Your task to perform on an android device: Go to Wikipedia Image 0: 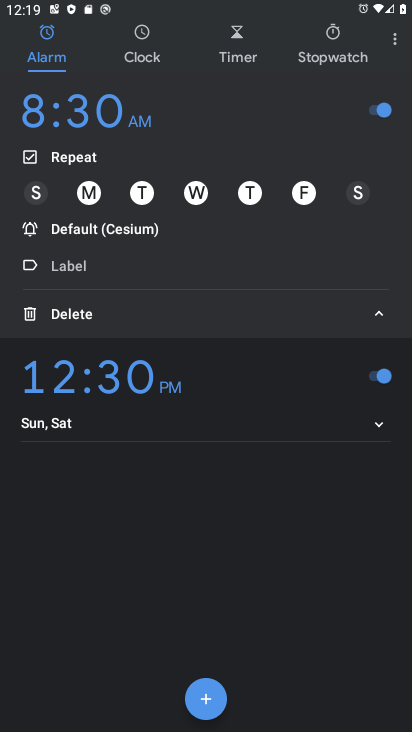
Step 0: press home button
Your task to perform on an android device: Go to Wikipedia Image 1: 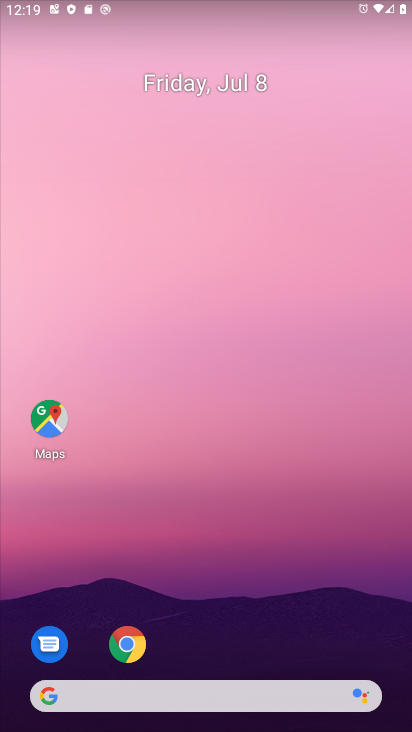
Step 1: click (132, 646)
Your task to perform on an android device: Go to Wikipedia Image 2: 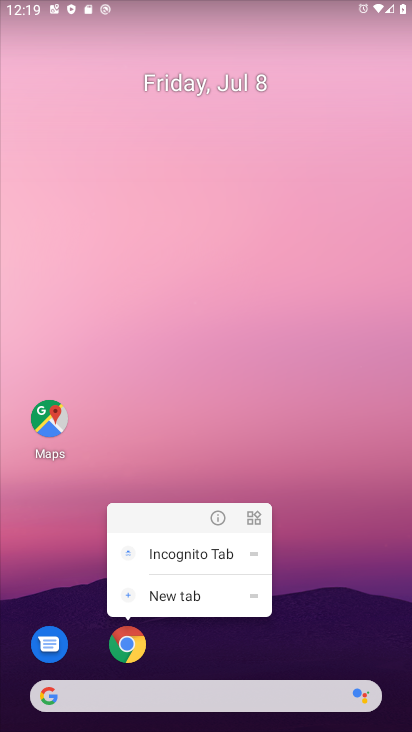
Step 2: click (130, 640)
Your task to perform on an android device: Go to Wikipedia Image 3: 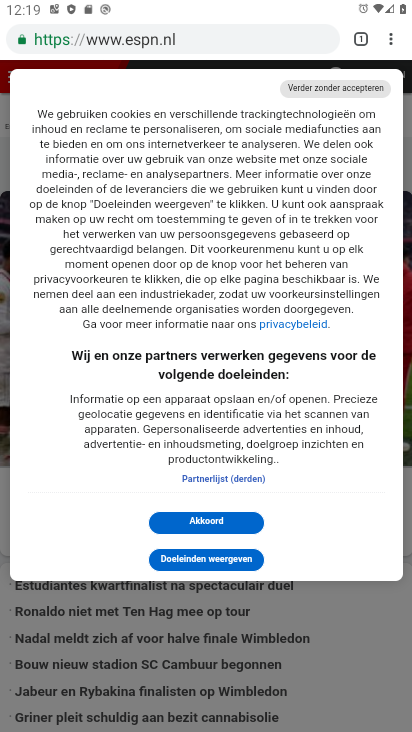
Step 3: click (204, 42)
Your task to perform on an android device: Go to Wikipedia Image 4: 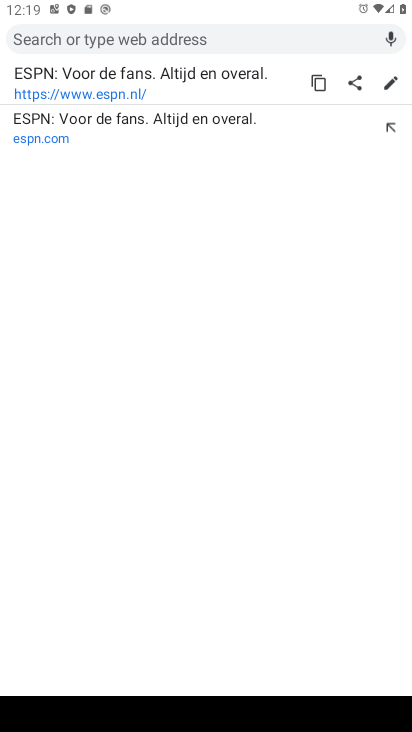
Step 4: type "wikipedia"
Your task to perform on an android device: Go to Wikipedia Image 5: 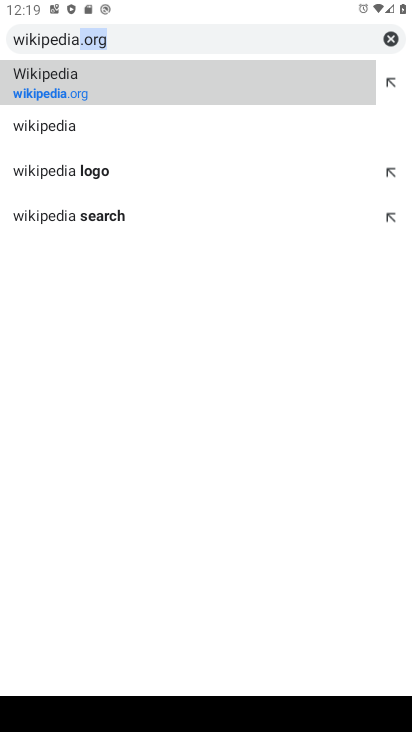
Step 5: click (107, 130)
Your task to perform on an android device: Go to Wikipedia Image 6: 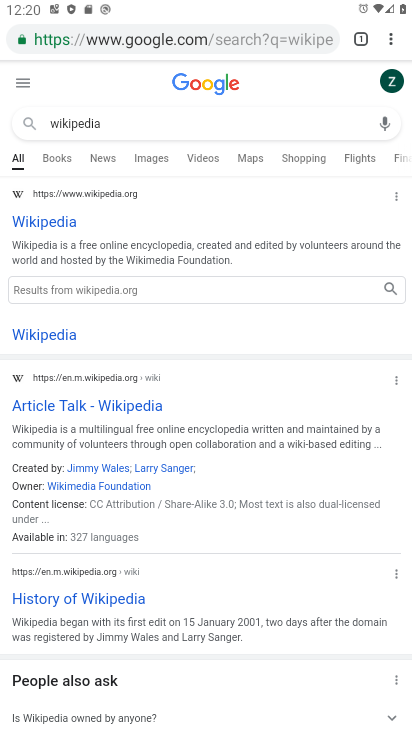
Step 6: task complete